Your task to perform on an android device: Do I have any events today? Image 0: 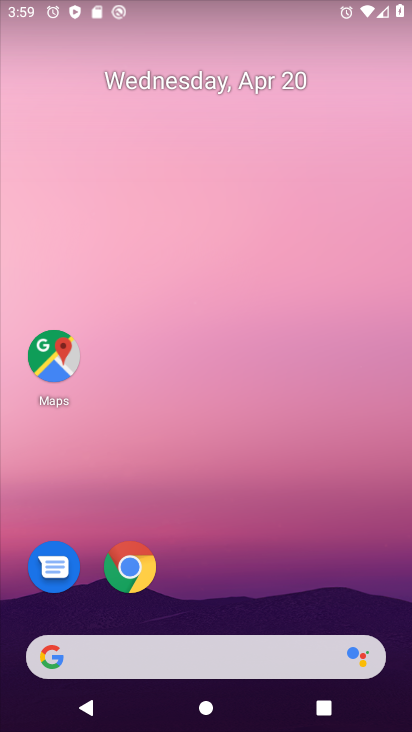
Step 0: drag from (360, 545) to (300, 199)
Your task to perform on an android device: Do I have any events today? Image 1: 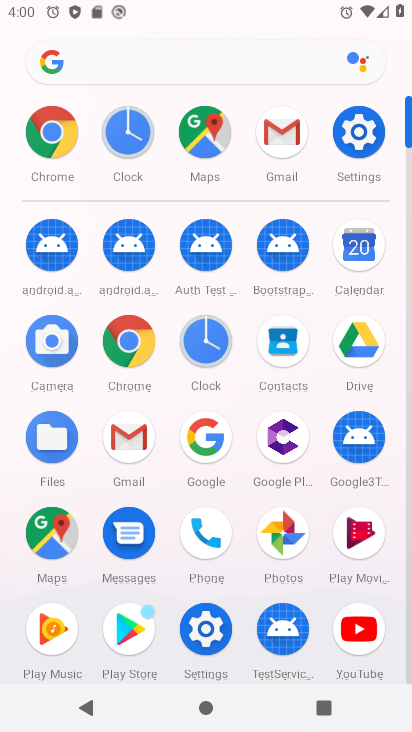
Step 1: click (364, 251)
Your task to perform on an android device: Do I have any events today? Image 2: 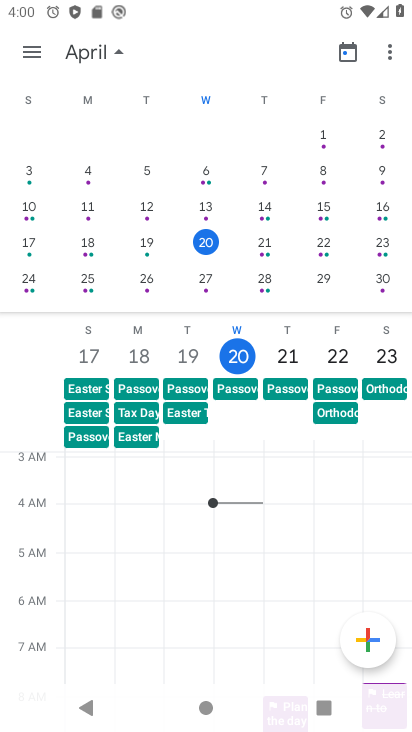
Step 2: click (37, 50)
Your task to perform on an android device: Do I have any events today? Image 3: 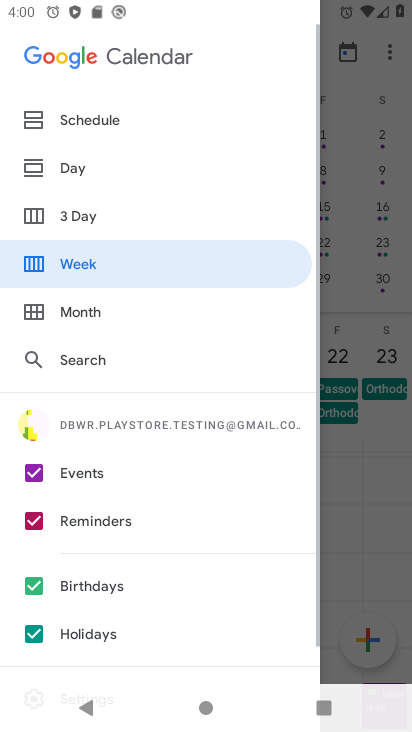
Step 3: click (34, 636)
Your task to perform on an android device: Do I have any events today? Image 4: 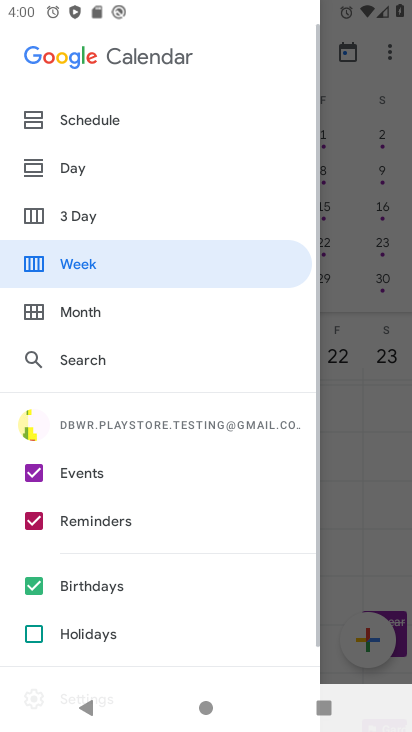
Step 4: click (34, 583)
Your task to perform on an android device: Do I have any events today? Image 5: 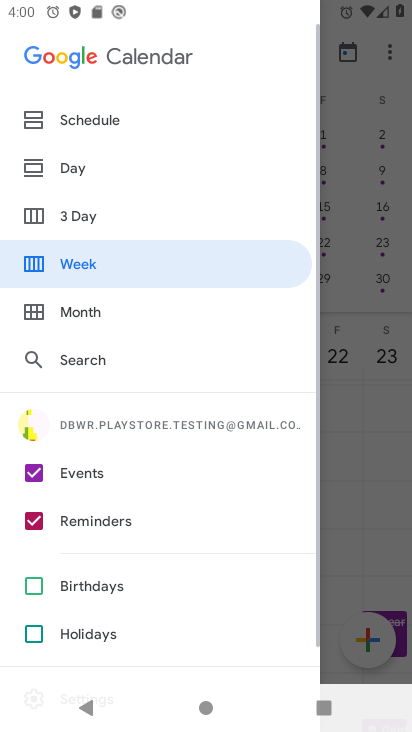
Step 5: click (35, 523)
Your task to perform on an android device: Do I have any events today? Image 6: 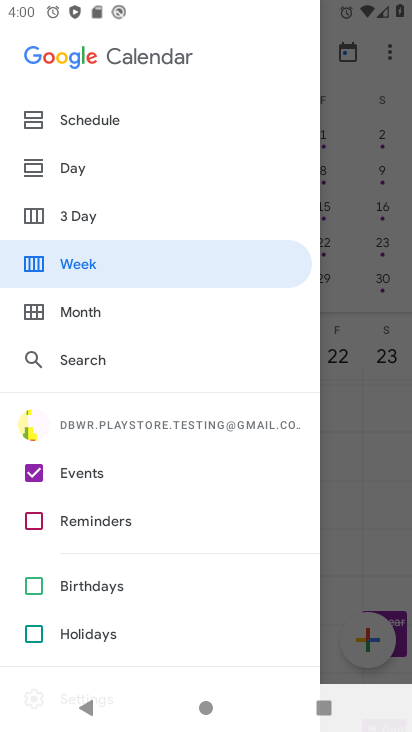
Step 6: click (114, 173)
Your task to perform on an android device: Do I have any events today? Image 7: 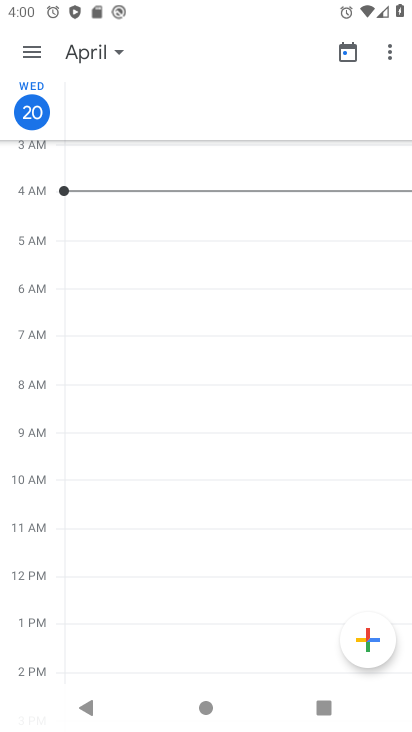
Step 7: click (113, 56)
Your task to perform on an android device: Do I have any events today? Image 8: 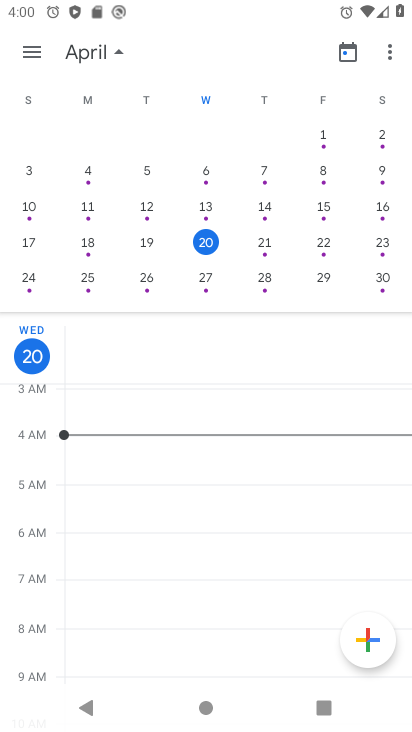
Step 8: click (210, 242)
Your task to perform on an android device: Do I have any events today? Image 9: 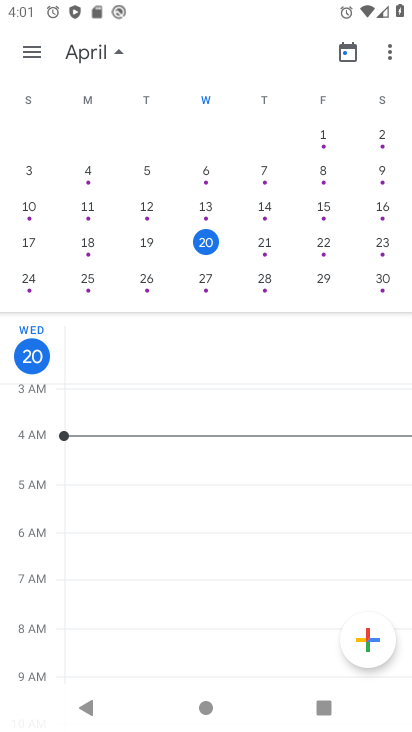
Step 9: click (114, 57)
Your task to perform on an android device: Do I have any events today? Image 10: 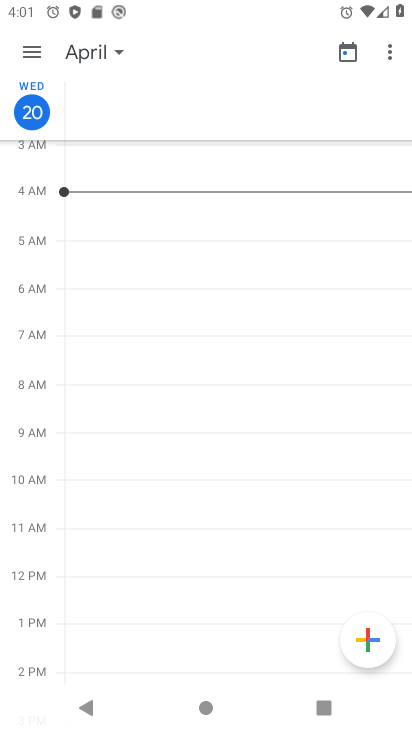
Step 10: task complete